Your task to perform on an android device: turn off wifi Image 0: 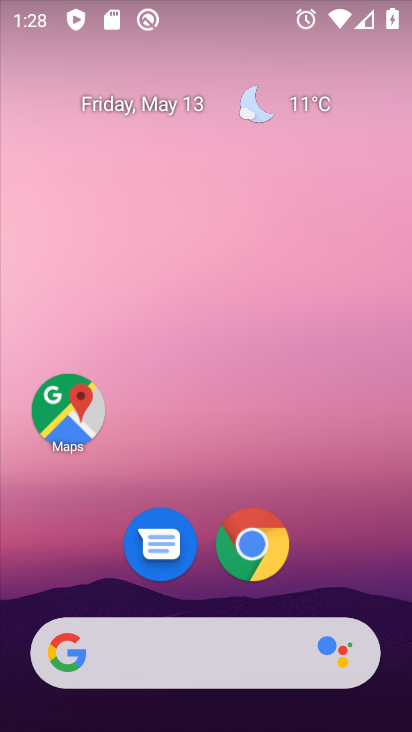
Step 0: drag from (194, 582) to (292, 126)
Your task to perform on an android device: turn off wifi Image 1: 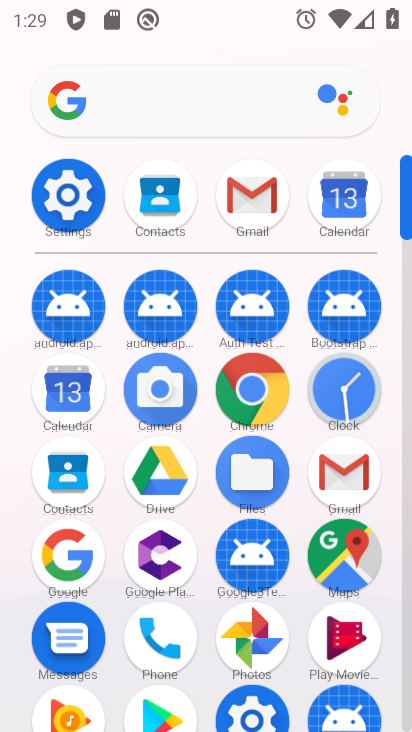
Step 1: click (253, 718)
Your task to perform on an android device: turn off wifi Image 2: 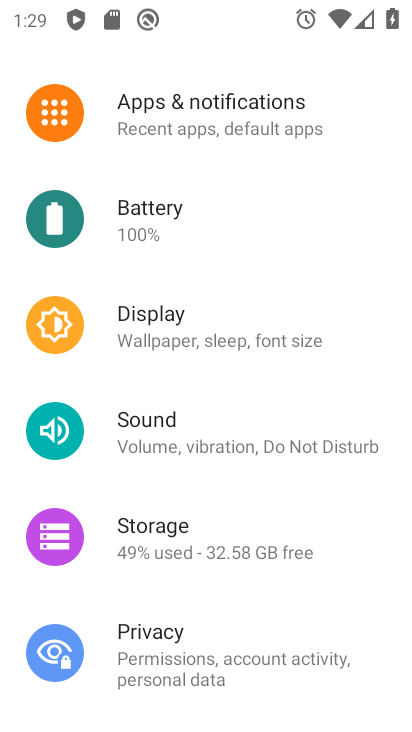
Step 2: drag from (215, 203) to (254, 721)
Your task to perform on an android device: turn off wifi Image 3: 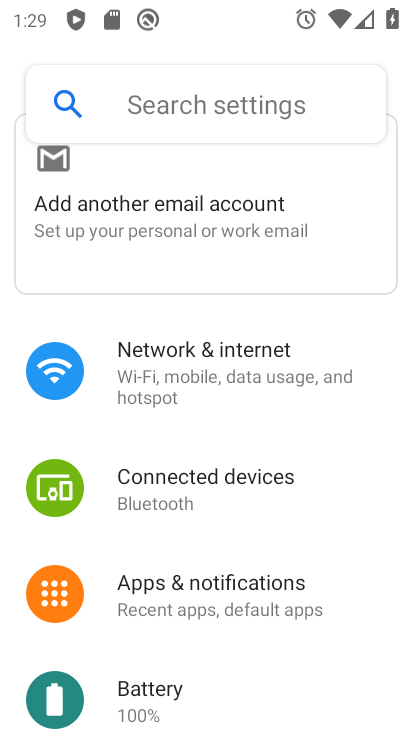
Step 3: click (219, 311)
Your task to perform on an android device: turn off wifi Image 4: 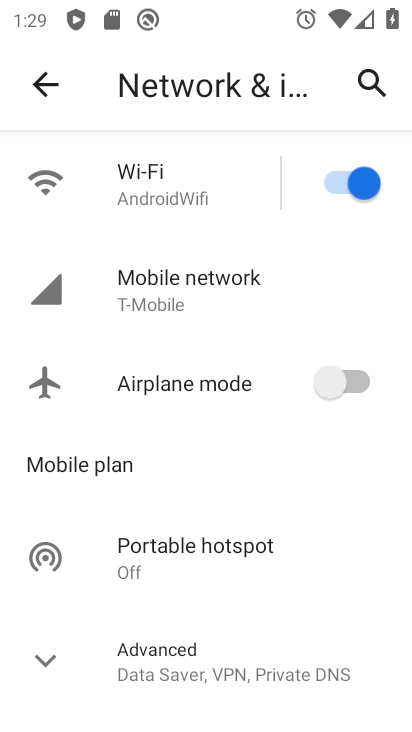
Step 4: click (327, 188)
Your task to perform on an android device: turn off wifi Image 5: 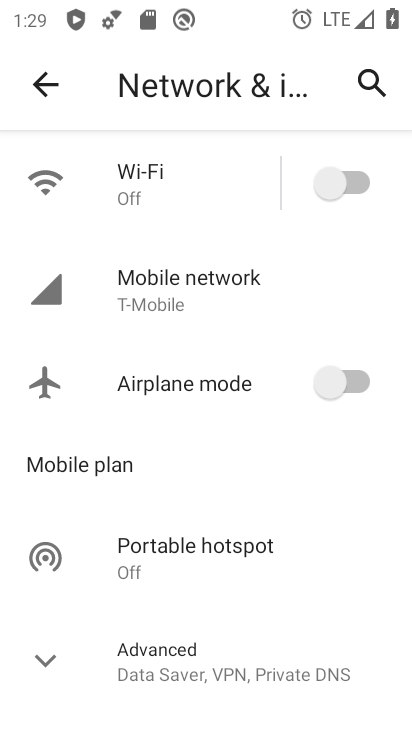
Step 5: task complete